Your task to perform on an android device: toggle location history Image 0: 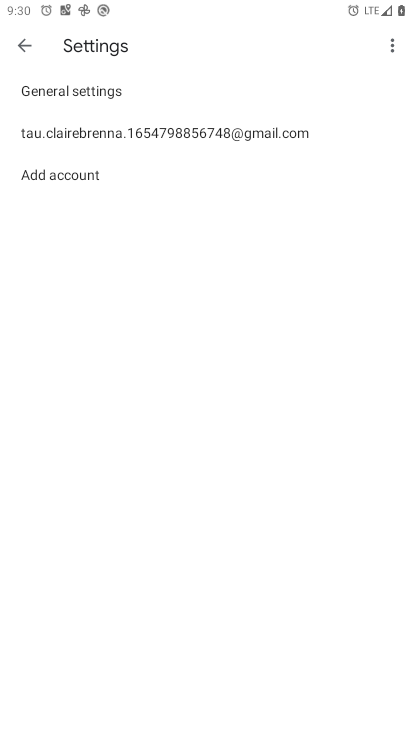
Step 0: press home button
Your task to perform on an android device: toggle location history Image 1: 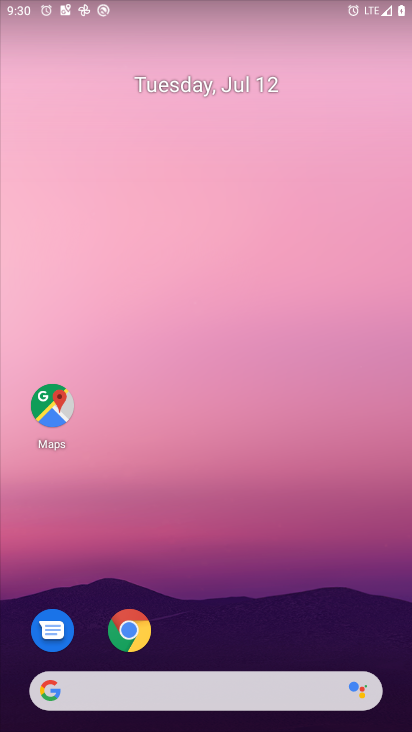
Step 1: drag from (260, 619) to (256, 68)
Your task to perform on an android device: toggle location history Image 2: 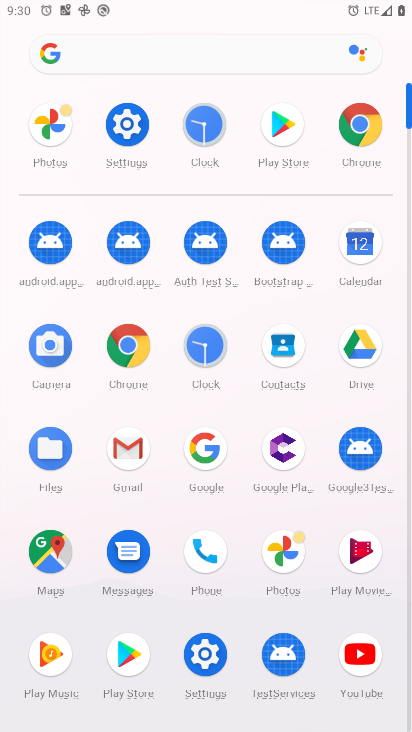
Step 2: click (124, 128)
Your task to perform on an android device: toggle location history Image 3: 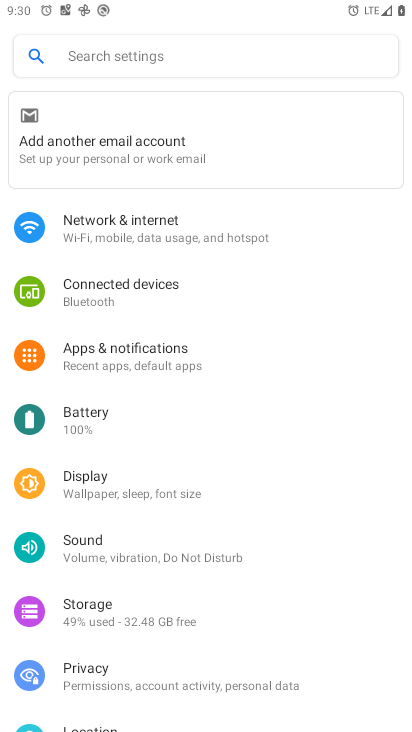
Step 3: drag from (122, 651) to (96, 250)
Your task to perform on an android device: toggle location history Image 4: 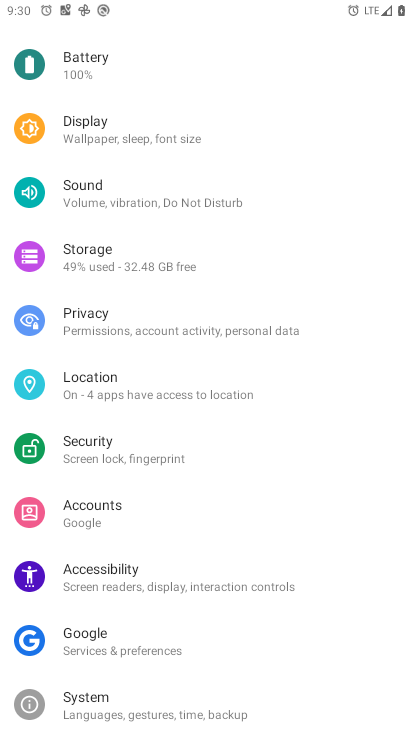
Step 4: click (115, 391)
Your task to perform on an android device: toggle location history Image 5: 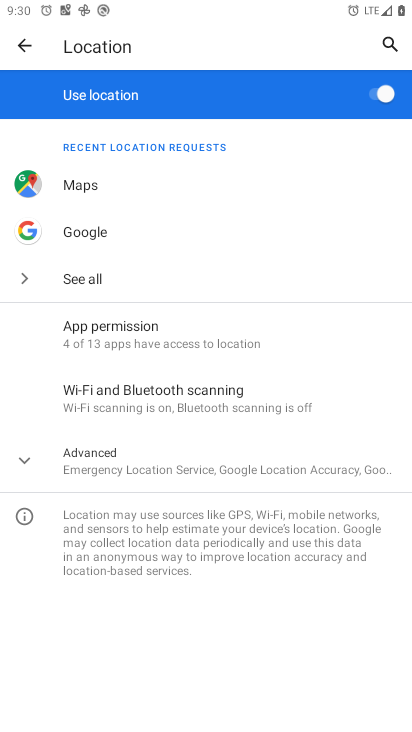
Step 5: click (24, 462)
Your task to perform on an android device: toggle location history Image 6: 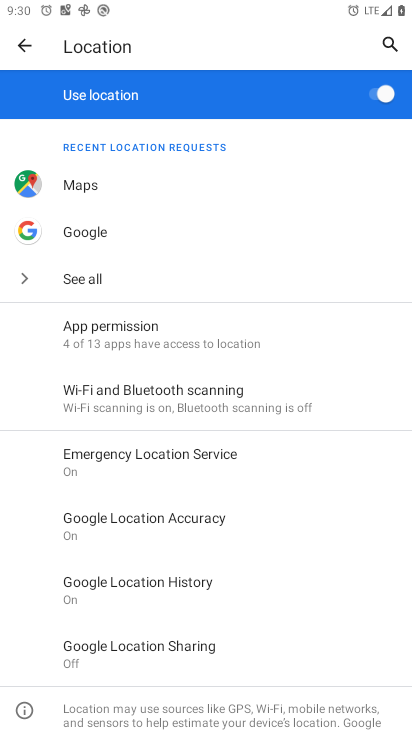
Step 6: click (101, 594)
Your task to perform on an android device: toggle location history Image 7: 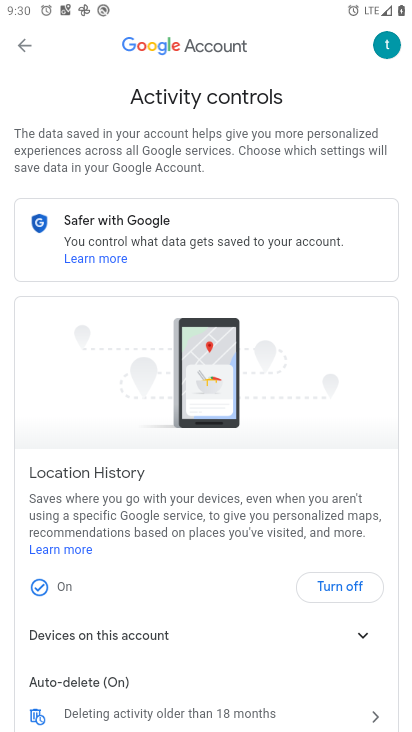
Step 7: click (355, 592)
Your task to perform on an android device: toggle location history Image 8: 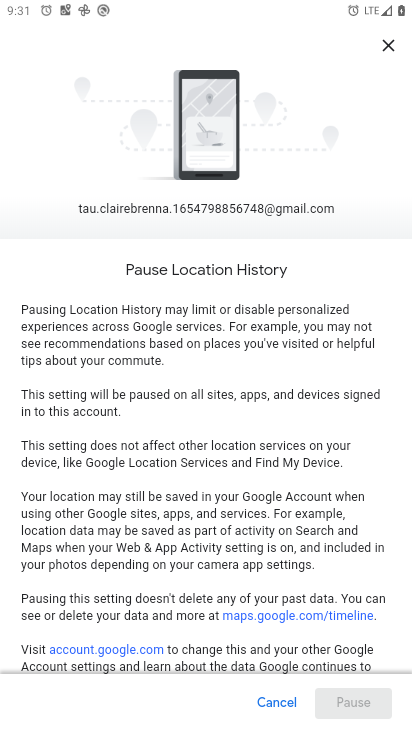
Step 8: drag from (349, 641) to (305, 298)
Your task to perform on an android device: toggle location history Image 9: 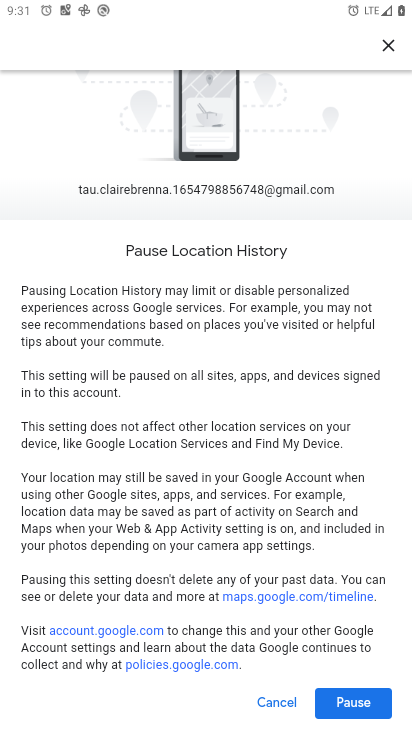
Step 9: click (363, 703)
Your task to perform on an android device: toggle location history Image 10: 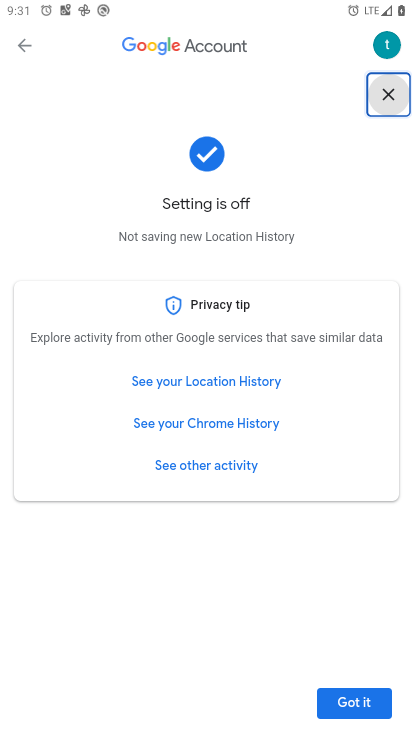
Step 10: click (368, 703)
Your task to perform on an android device: toggle location history Image 11: 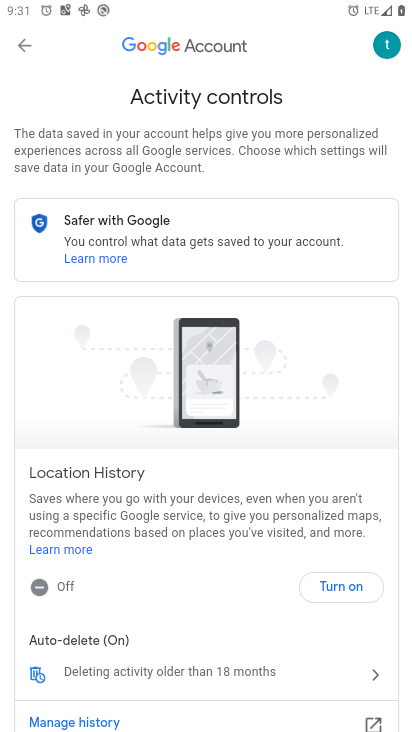
Step 11: task complete